Your task to perform on an android device: Open Reddit.com Image 0: 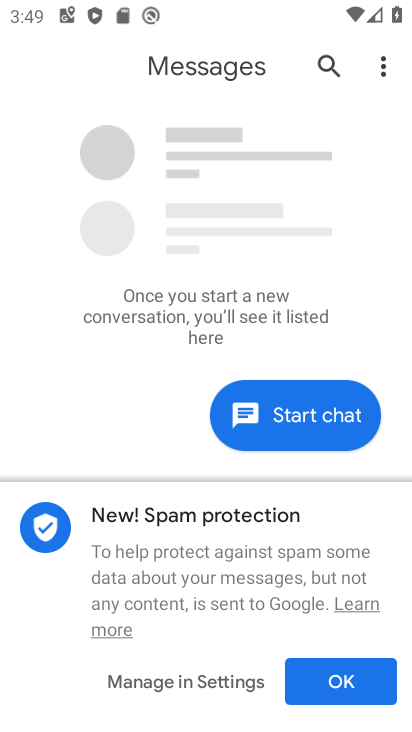
Step 0: press home button
Your task to perform on an android device: Open Reddit.com Image 1: 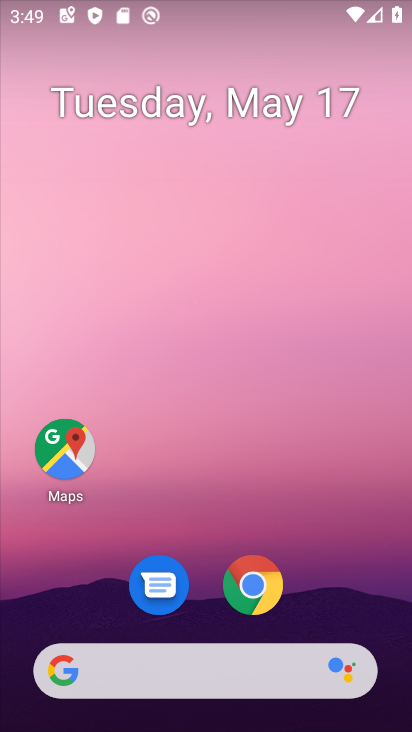
Step 1: click (235, 672)
Your task to perform on an android device: Open Reddit.com Image 2: 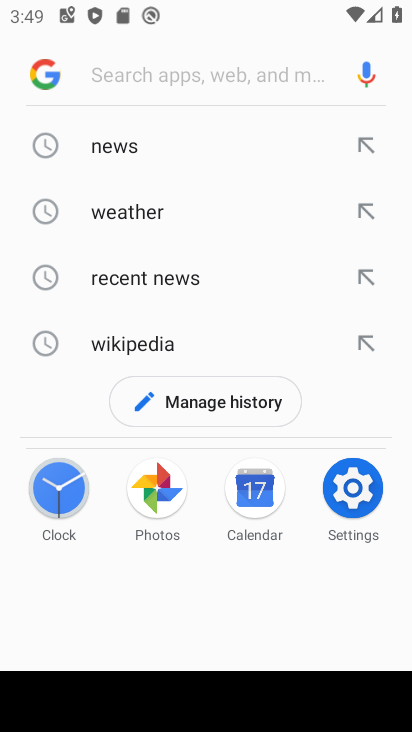
Step 2: type "reddit.com"
Your task to perform on an android device: Open Reddit.com Image 3: 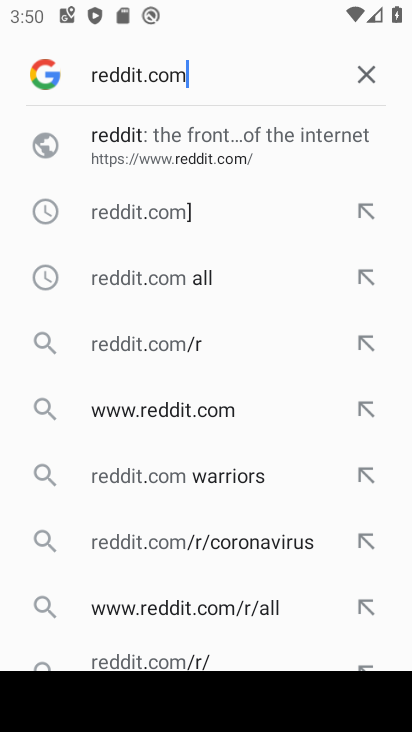
Step 3: click (124, 142)
Your task to perform on an android device: Open Reddit.com Image 4: 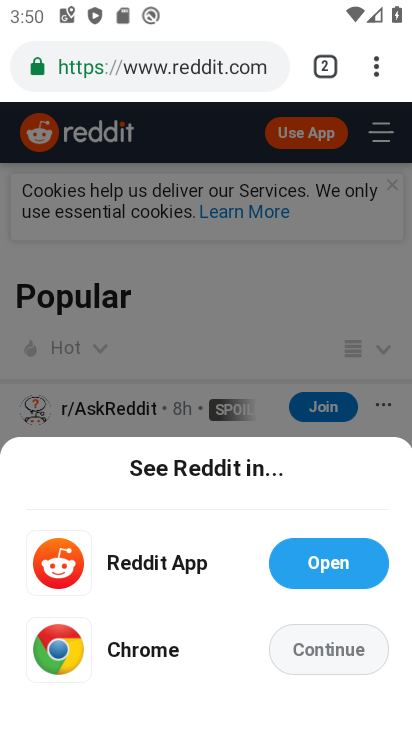
Step 4: task complete